Your task to perform on an android device: Open location settings Image 0: 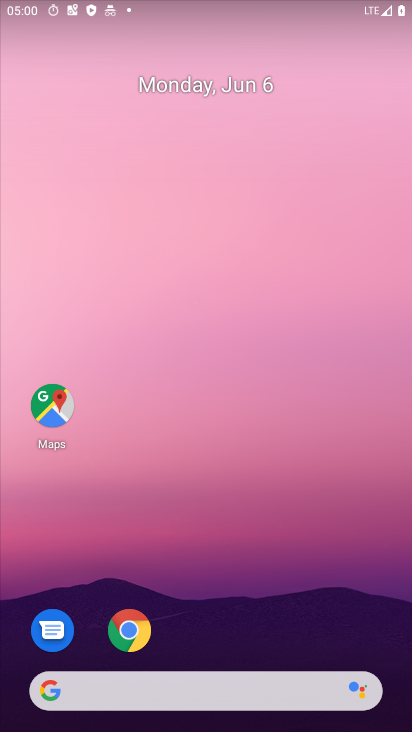
Step 0: drag from (238, 590) to (361, 75)
Your task to perform on an android device: Open location settings Image 1: 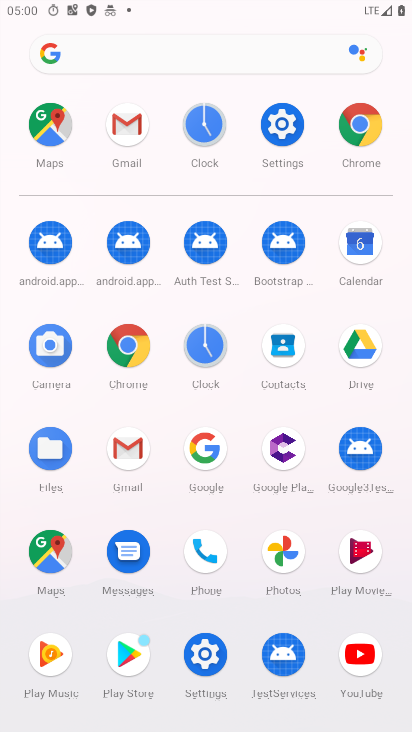
Step 1: click (203, 654)
Your task to perform on an android device: Open location settings Image 2: 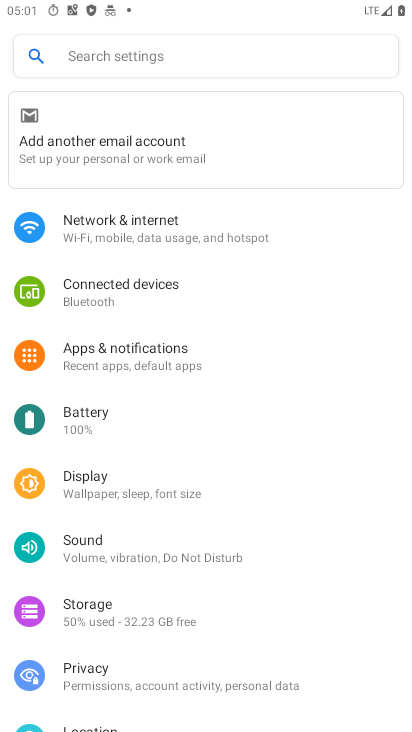
Step 2: drag from (204, 646) to (211, 314)
Your task to perform on an android device: Open location settings Image 3: 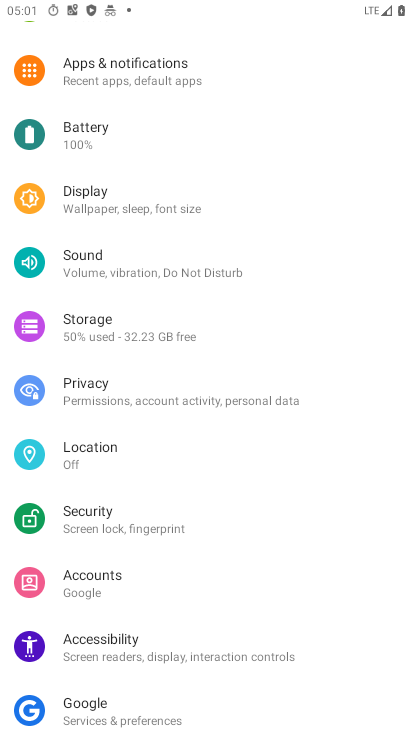
Step 3: click (90, 450)
Your task to perform on an android device: Open location settings Image 4: 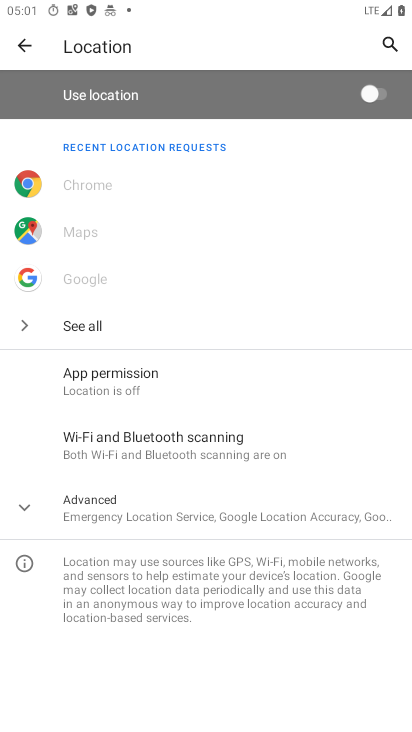
Step 4: task complete